Your task to perform on an android device: move a message to another label in the gmail app Image 0: 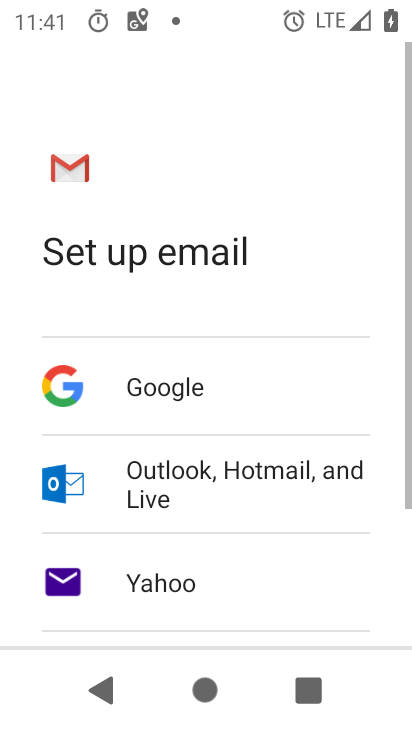
Step 0: press home button
Your task to perform on an android device: move a message to another label in the gmail app Image 1: 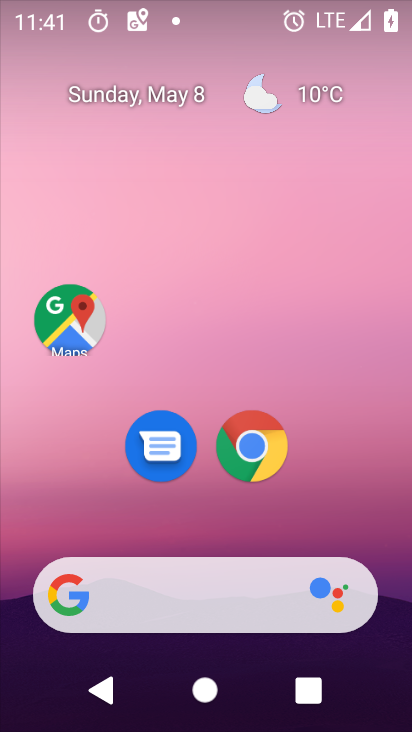
Step 1: drag from (386, 548) to (412, 20)
Your task to perform on an android device: move a message to another label in the gmail app Image 2: 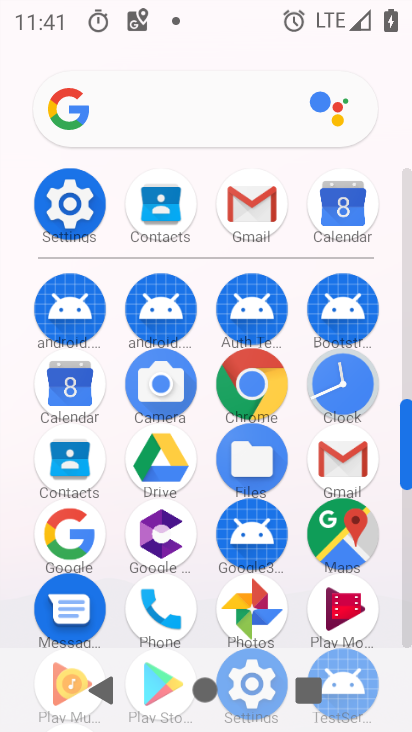
Step 2: click (242, 204)
Your task to perform on an android device: move a message to another label in the gmail app Image 3: 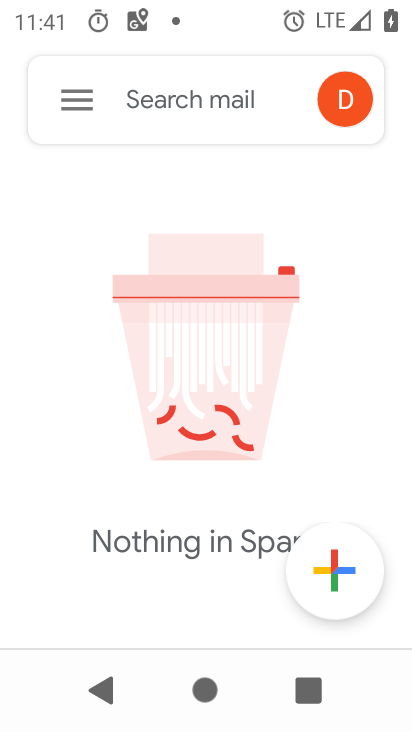
Step 3: click (78, 111)
Your task to perform on an android device: move a message to another label in the gmail app Image 4: 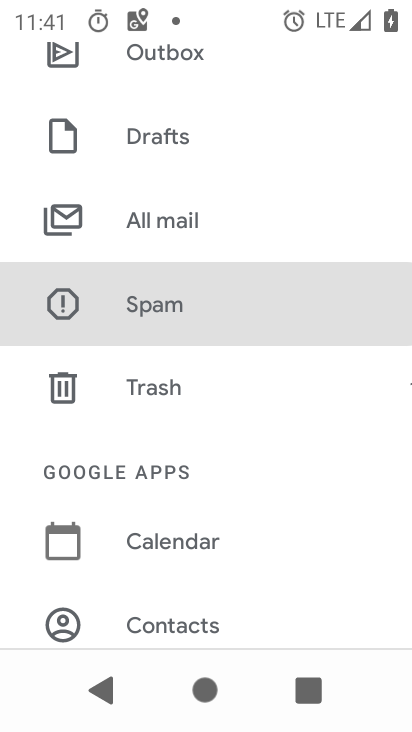
Step 4: click (156, 223)
Your task to perform on an android device: move a message to another label in the gmail app Image 5: 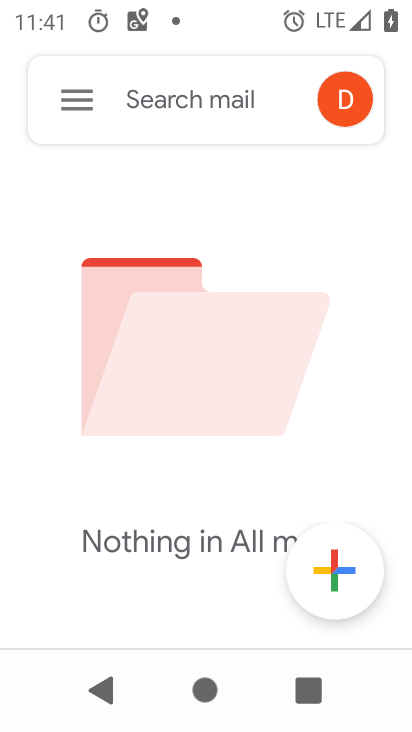
Step 5: task complete